Your task to perform on an android device: turn on airplane mode Image 0: 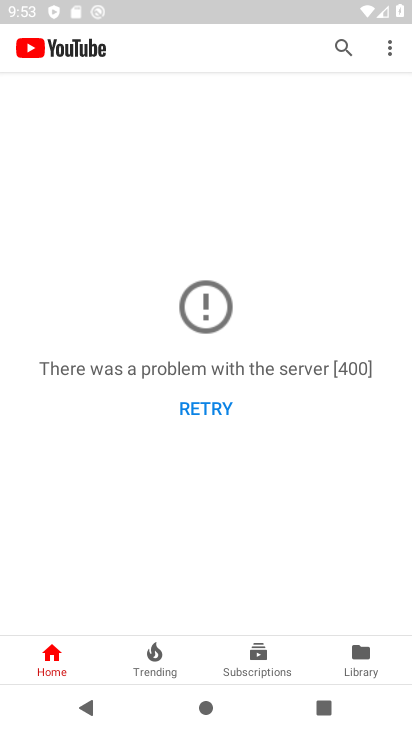
Step 0: press back button
Your task to perform on an android device: turn on airplane mode Image 1: 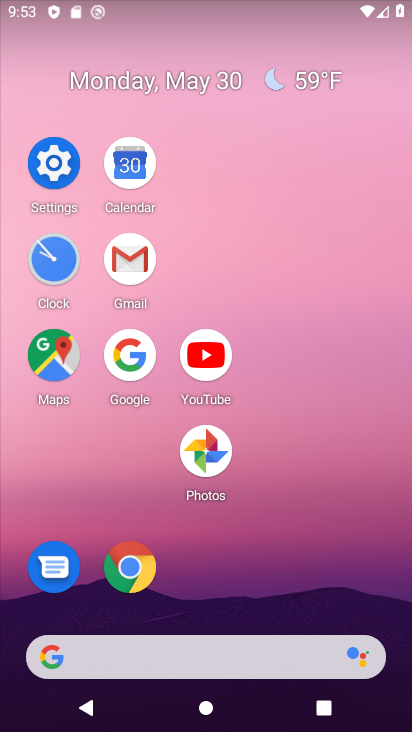
Step 1: click (67, 150)
Your task to perform on an android device: turn on airplane mode Image 2: 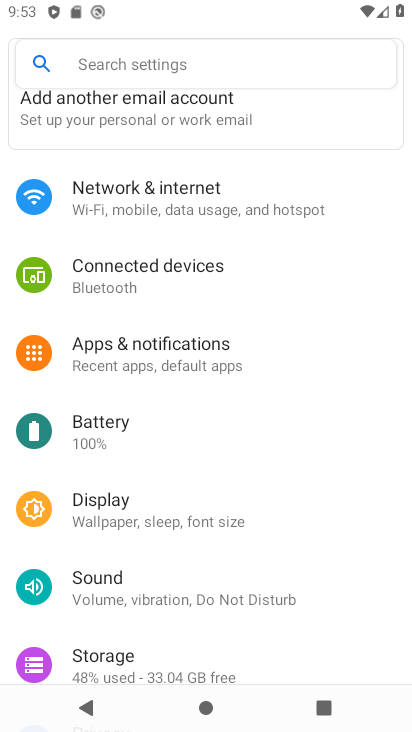
Step 2: click (226, 214)
Your task to perform on an android device: turn on airplane mode Image 3: 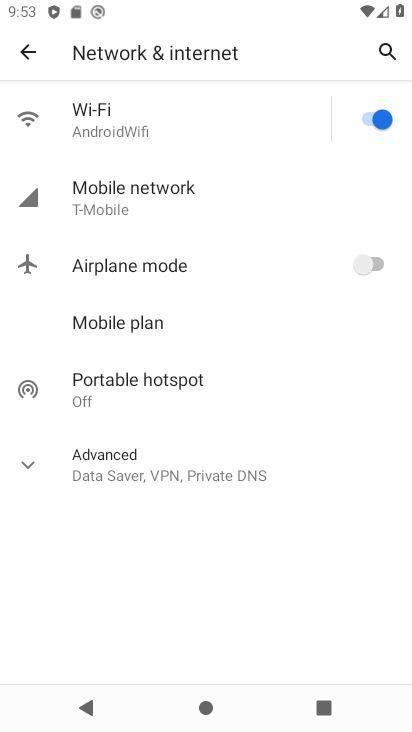
Step 3: click (372, 266)
Your task to perform on an android device: turn on airplane mode Image 4: 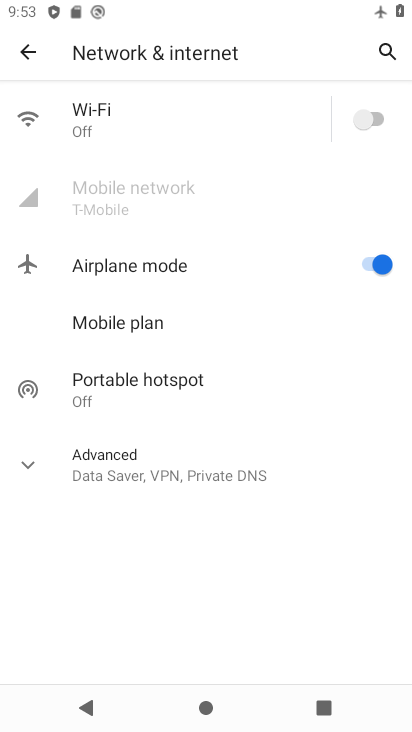
Step 4: task complete